Your task to perform on an android device: Search for sushi restaurants on Maps Image 0: 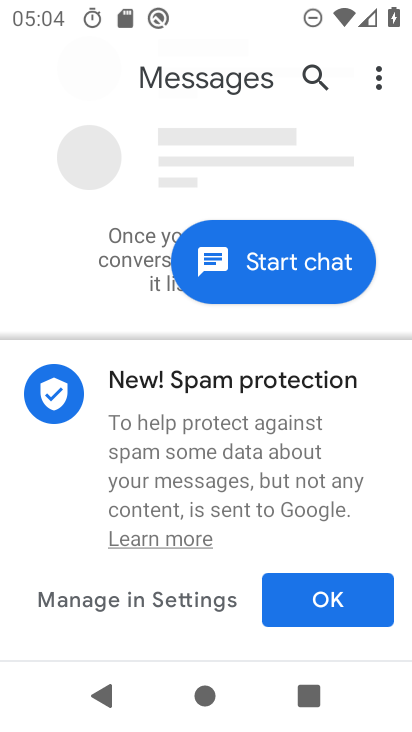
Step 0: press home button
Your task to perform on an android device: Search for sushi restaurants on Maps Image 1: 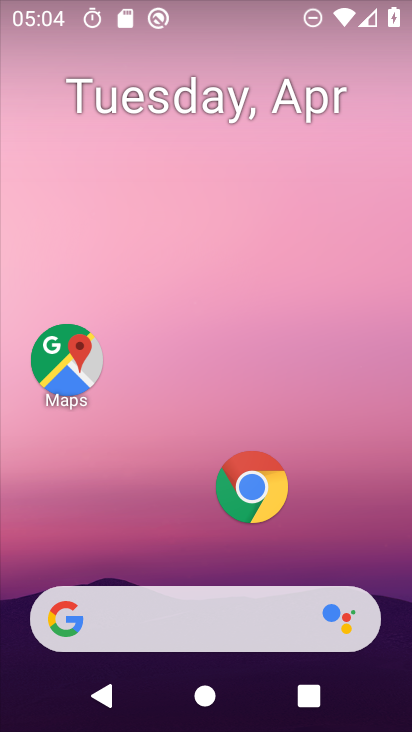
Step 1: click (48, 355)
Your task to perform on an android device: Search for sushi restaurants on Maps Image 2: 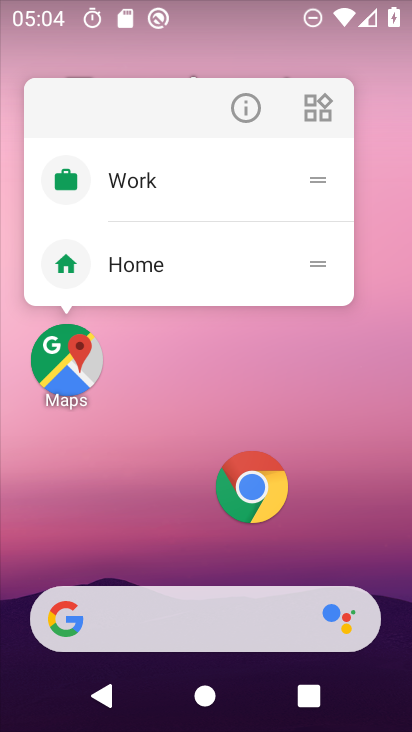
Step 2: click (60, 350)
Your task to perform on an android device: Search for sushi restaurants on Maps Image 3: 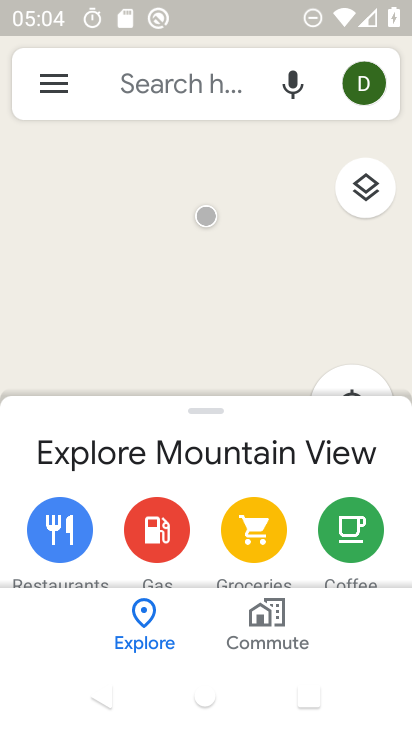
Step 3: click (159, 95)
Your task to perform on an android device: Search for sushi restaurants on Maps Image 4: 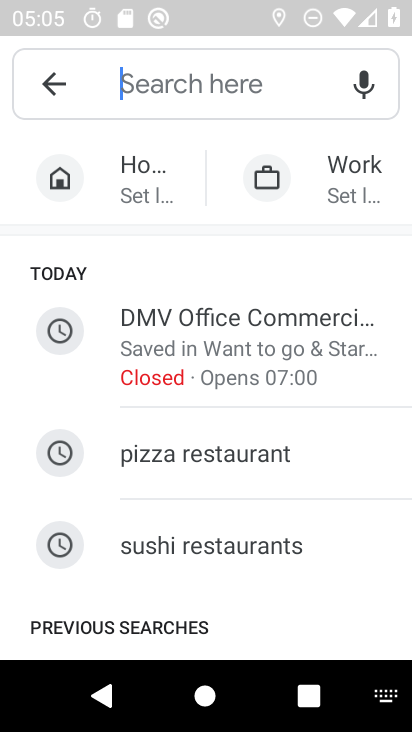
Step 4: click (160, 544)
Your task to perform on an android device: Search for sushi restaurants on Maps Image 5: 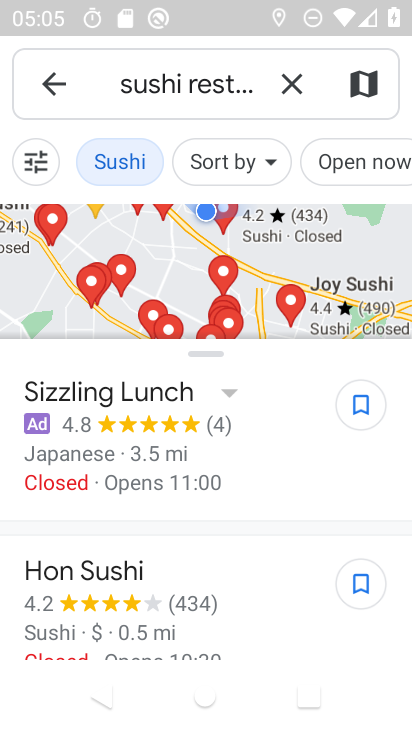
Step 5: task complete